Your task to perform on an android device: Open Google Maps and go to "Timeline" Image 0: 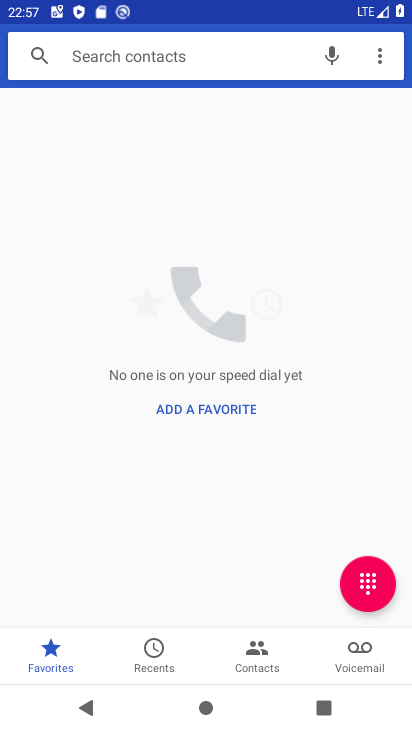
Step 0: press back button
Your task to perform on an android device: Open Google Maps and go to "Timeline" Image 1: 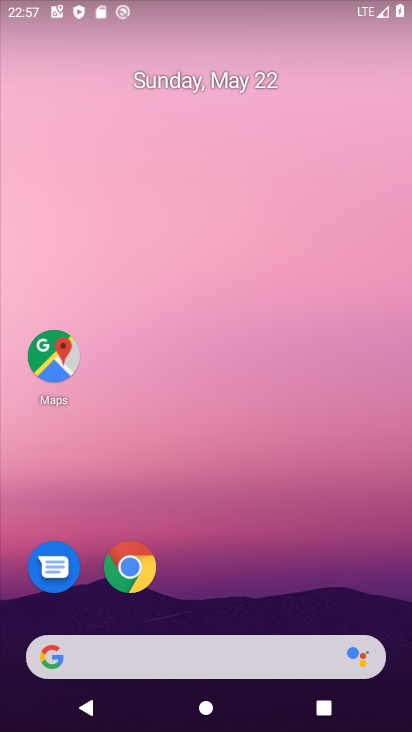
Step 1: drag from (230, 557) to (215, 2)
Your task to perform on an android device: Open Google Maps and go to "Timeline" Image 2: 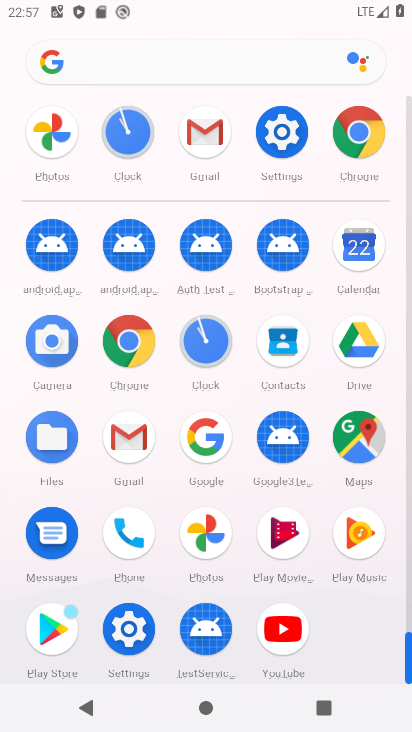
Step 2: drag from (6, 585) to (21, 250)
Your task to perform on an android device: Open Google Maps and go to "Timeline" Image 3: 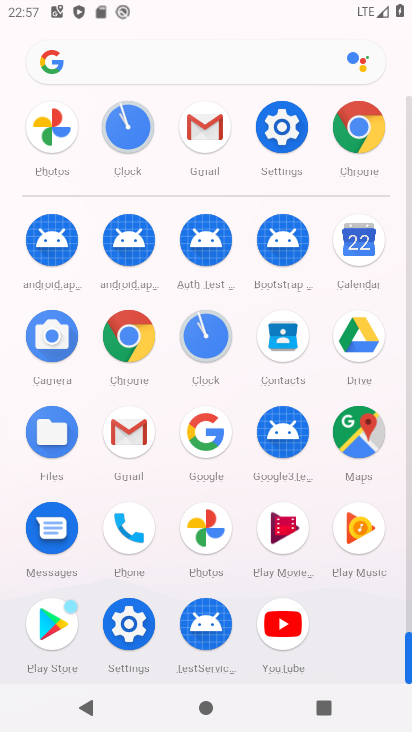
Step 3: click (363, 426)
Your task to perform on an android device: Open Google Maps and go to "Timeline" Image 4: 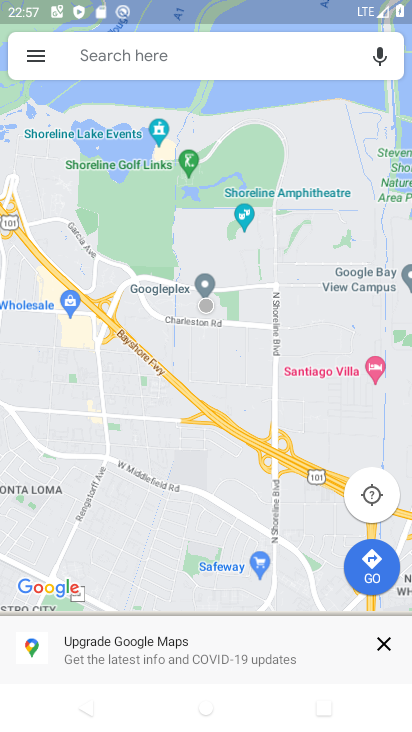
Step 4: click (37, 51)
Your task to perform on an android device: Open Google Maps and go to "Timeline" Image 5: 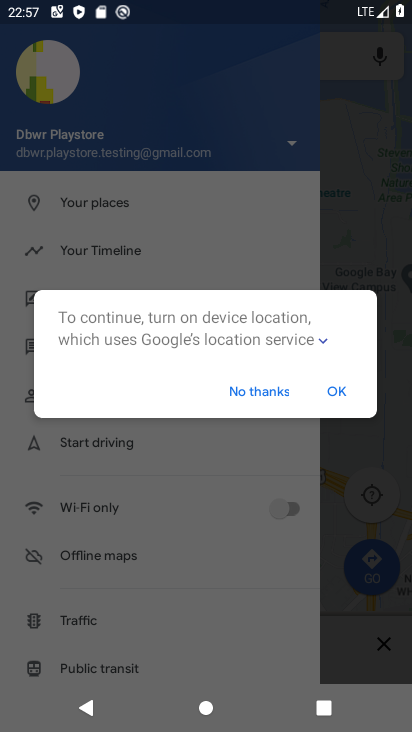
Step 5: click (348, 390)
Your task to perform on an android device: Open Google Maps and go to "Timeline" Image 6: 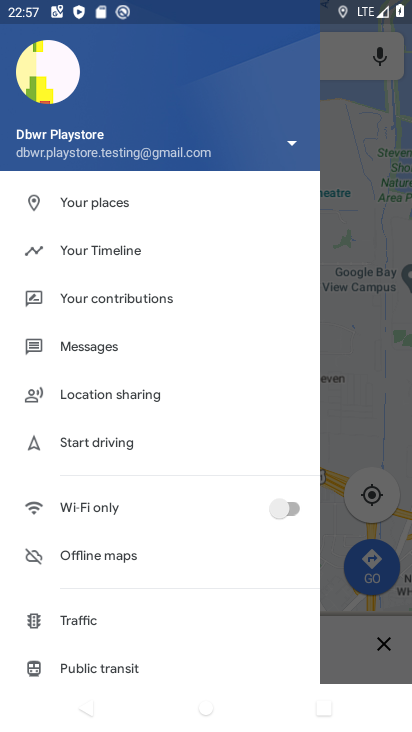
Step 6: click (112, 241)
Your task to perform on an android device: Open Google Maps and go to "Timeline" Image 7: 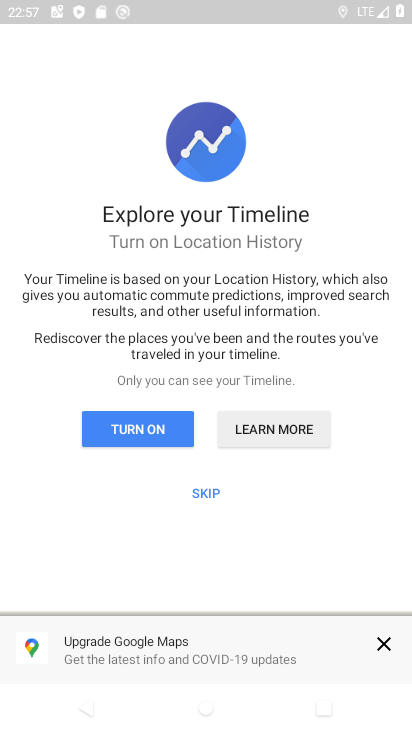
Step 7: click (150, 434)
Your task to perform on an android device: Open Google Maps and go to "Timeline" Image 8: 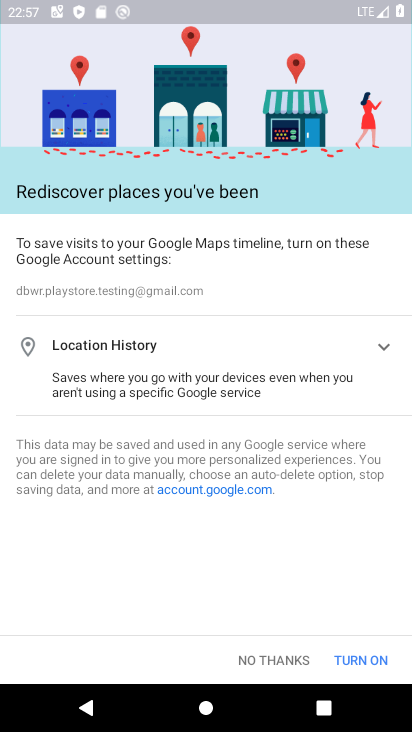
Step 8: click (360, 653)
Your task to perform on an android device: Open Google Maps and go to "Timeline" Image 9: 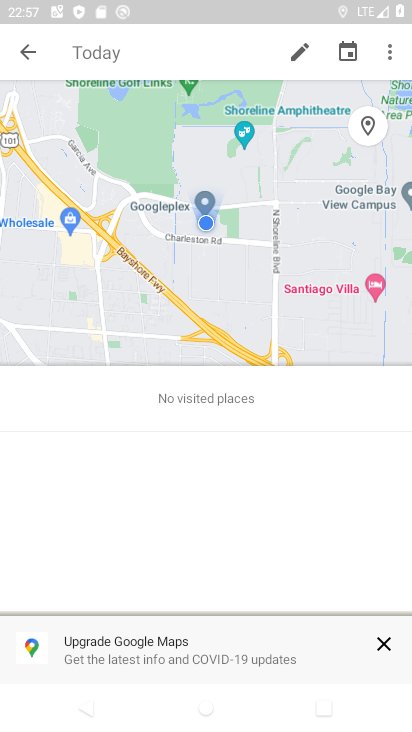
Step 9: task complete